Your task to perform on an android device: empty trash in the gmail app Image 0: 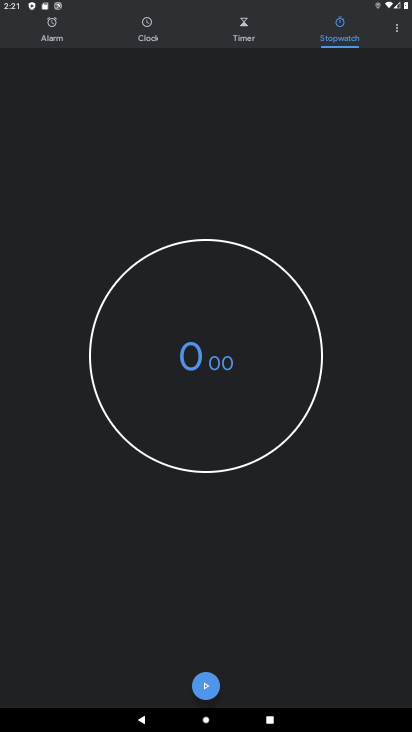
Step 0: press home button
Your task to perform on an android device: empty trash in the gmail app Image 1: 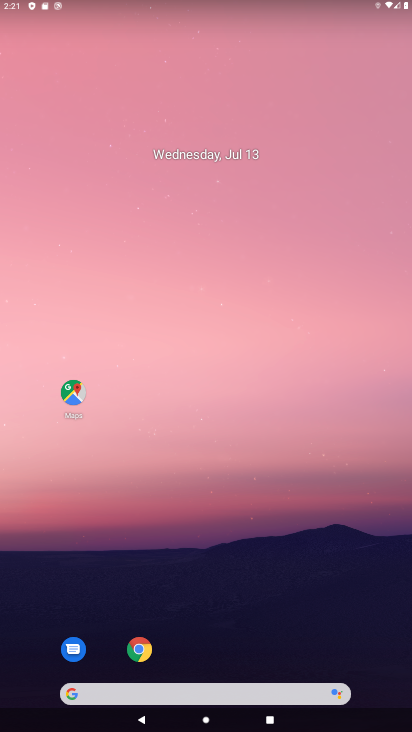
Step 1: drag from (236, 580) to (236, 150)
Your task to perform on an android device: empty trash in the gmail app Image 2: 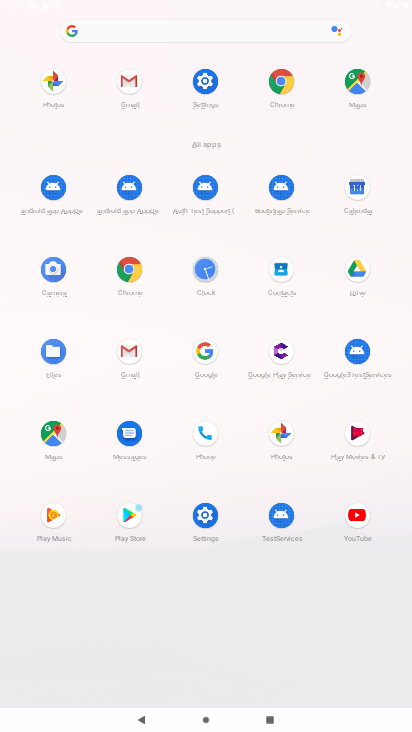
Step 2: click (131, 80)
Your task to perform on an android device: empty trash in the gmail app Image 3: 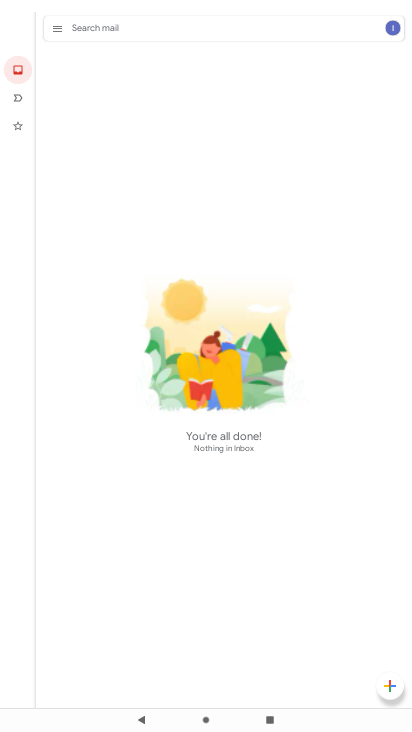
Step 3: click (57, 26)
Your task to perform on an android device: empty trash in the gmail app Image 4: 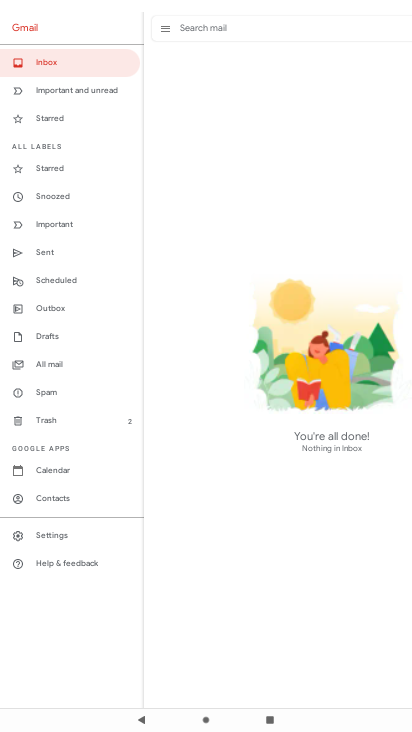
Step 4: click (41, 419)
Your task to perform on an android device: empty trash in the gmail app Image 5: 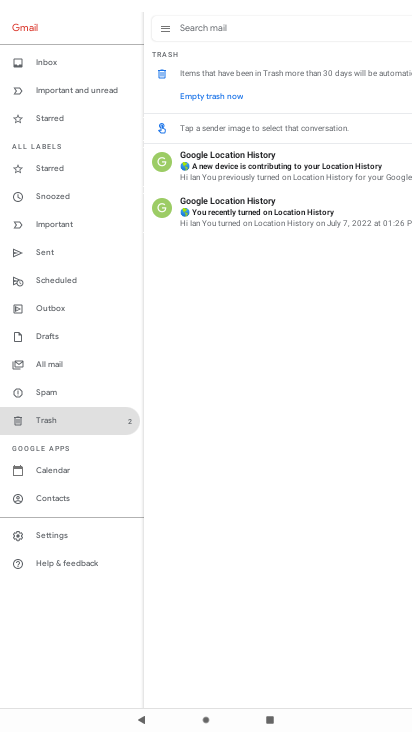
Step 5: click (200, 95)
Your task to perform on an android device: empty trash in the gmail app Image 6: 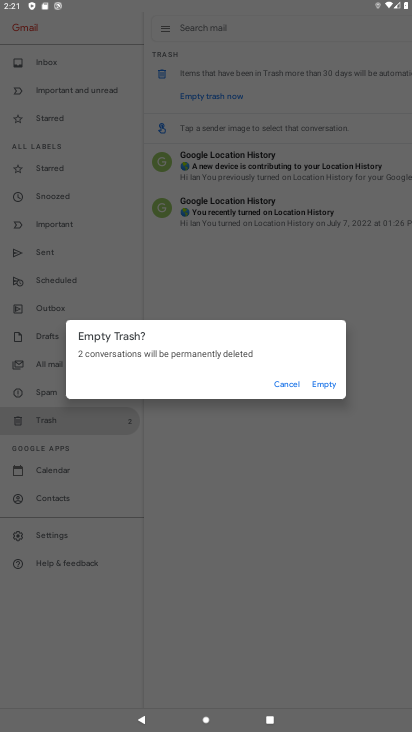
Step 6: click (323, 385)
Your task to perform on an android device: empty trash in the gmail app Image 7: 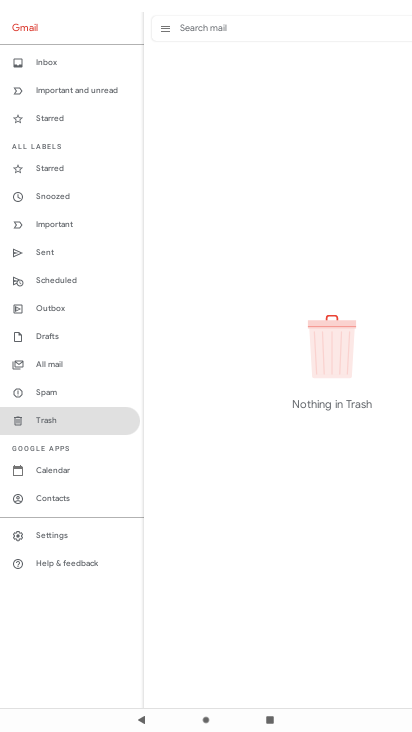
Step 7: task complete